Your task to perform on an android device: check out phone information Image 0: 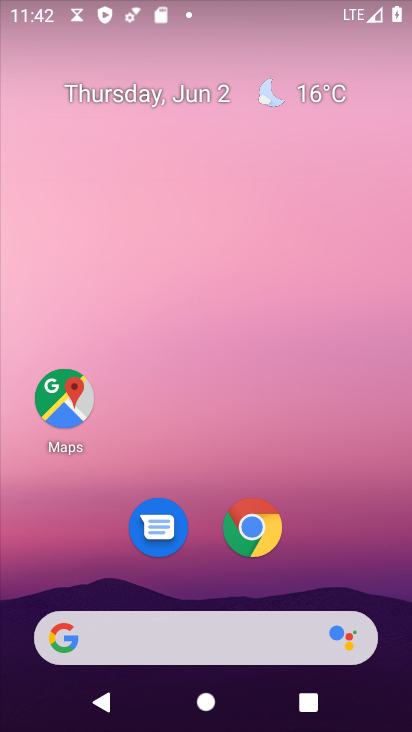
Step 0: drag from (169, 647) to (153, 10)
Your task to perform on an android device: check out phone information Image 1: 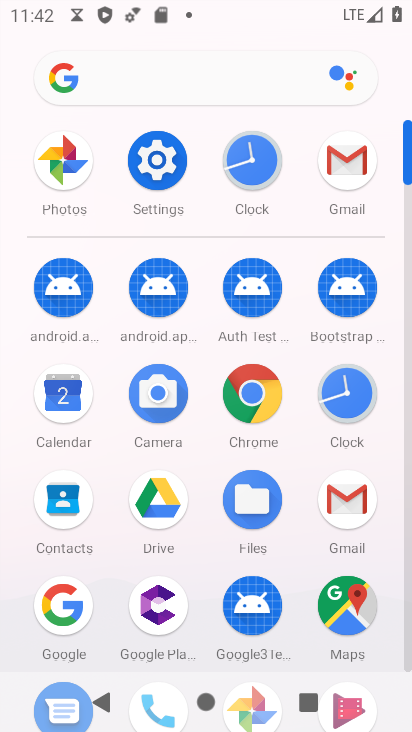
Step 1: click (157, 172)
Your task to perform on an android device: check out phone information Image 2: 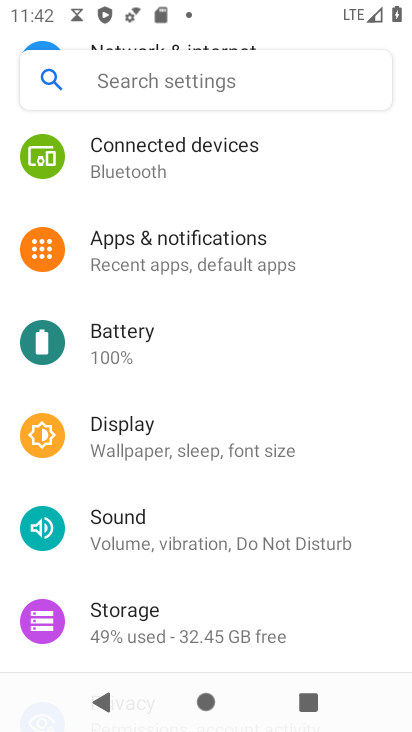
Step 2: drag from (175, 577) to (112, 17)
Your task to perform on an android device: check out phone information Image 3: 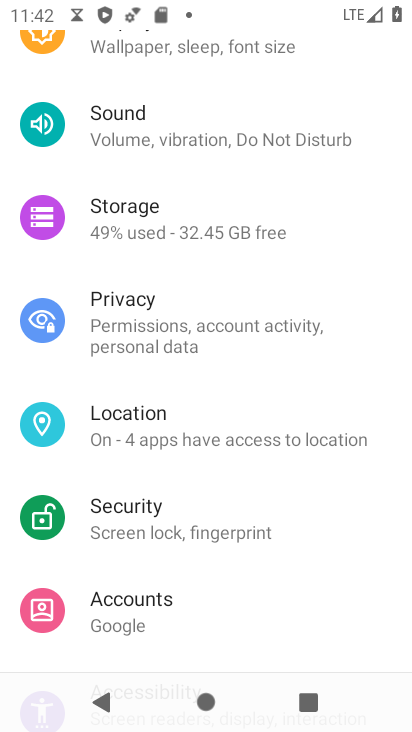
Step 3: drag from (184, 598) to (149, 0)
Your task to perform on an android device: check out phone information Image 4: 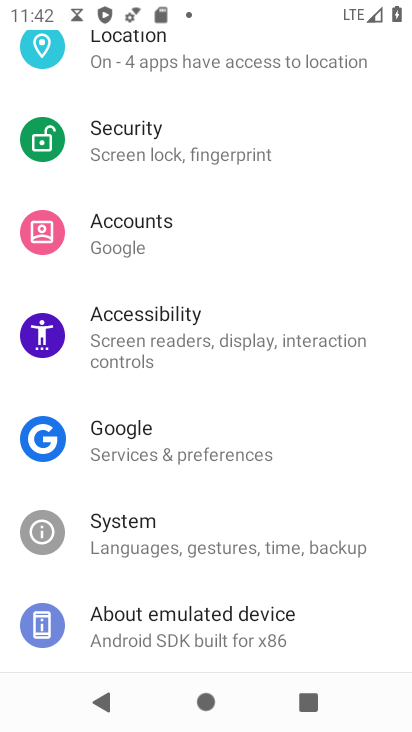
Step 4: click (173, 635)
Your task to perform on an android device: check out phone information Image 5: 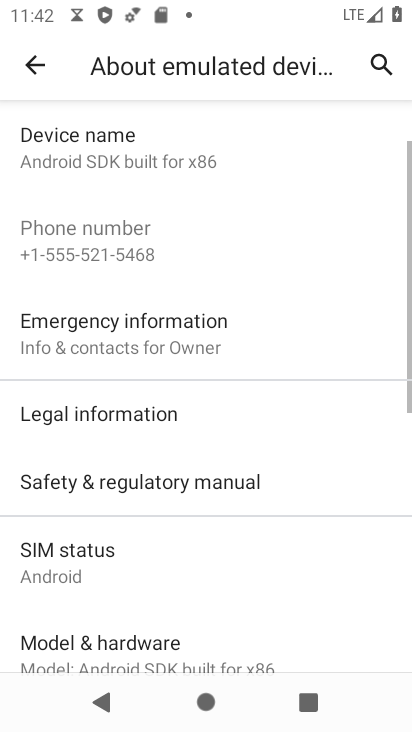
Step 5: task complete